Your task to perform on an android device: turn off wifi Image 0: 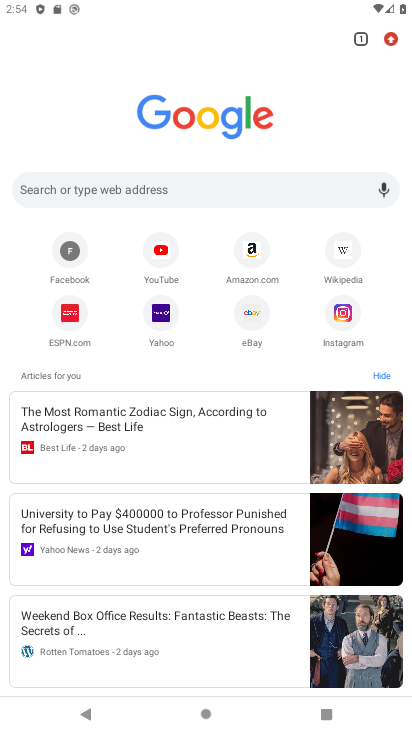
Step 0: drag from (141, 327) to (159, 211)
Your task to perform on an android device: turn off wifi Image 1: 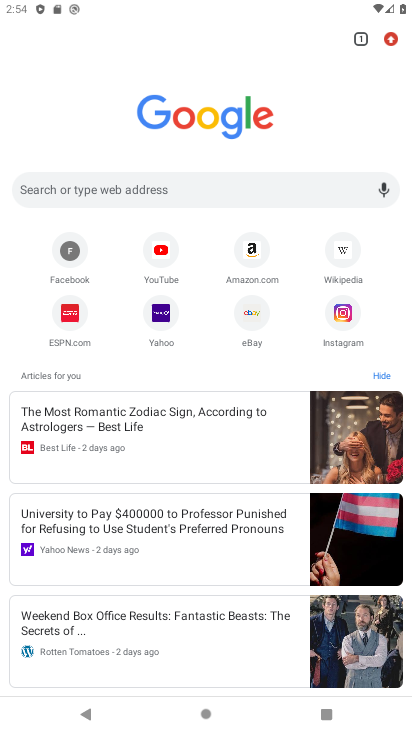
Step 1: drag from (163, 539) to (256, 147)
Your task to perform on an android device: turn off wifi Image 2: 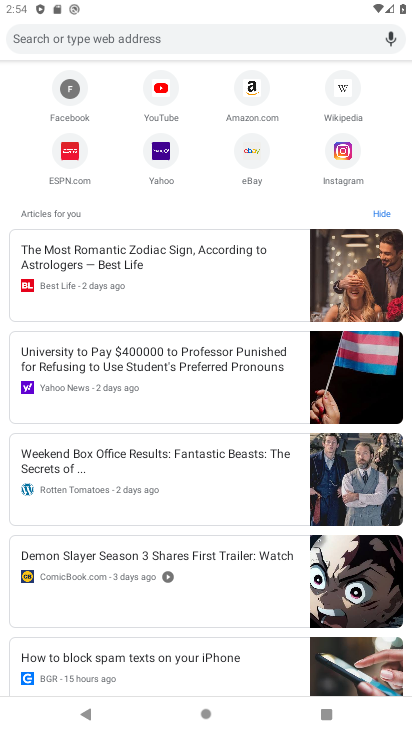
Step 2: drag from (184, 367) to (138, 531)
Your task to perform on an android device: turn off wifi Image 3: 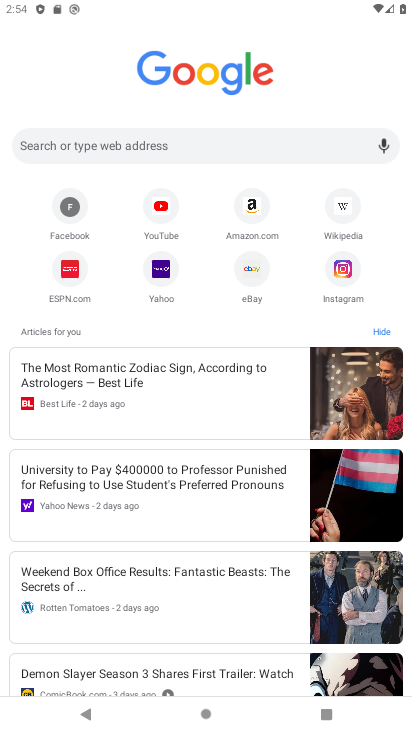
Step 3: drag from (201, 226) to (154, 512)
Your task to perform on an android device: turn off wifi Image 4: 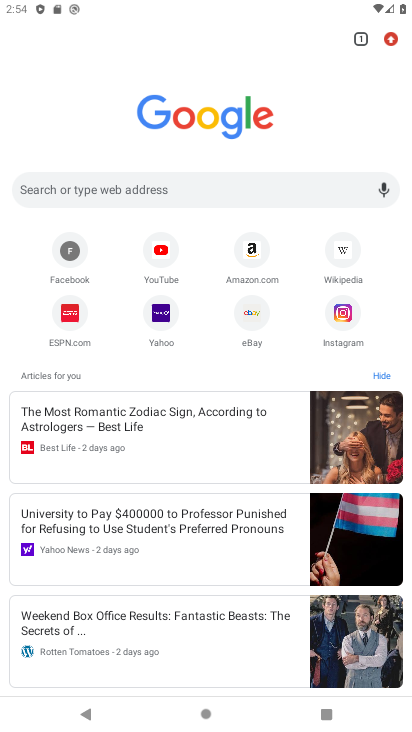
Step 4: drag from (205, 188) to (147, 447)
Your task to perform on an android device: turn off wifi Image 5: 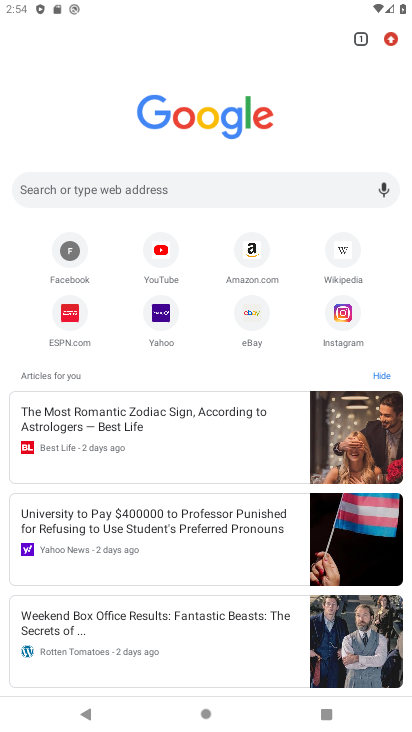
Step 5: press home button
Your task to perform on an android device: turn off wifi Image 6: 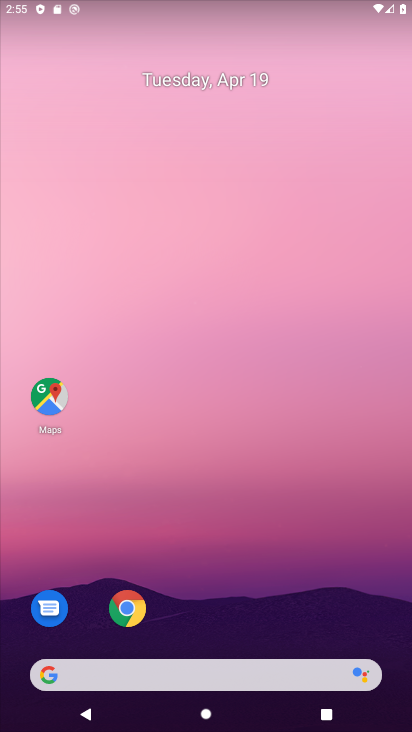
Step 6: drag from (302, 566) to (389, 147)
Your task to perform on an android device: turn off wifi Image 7: 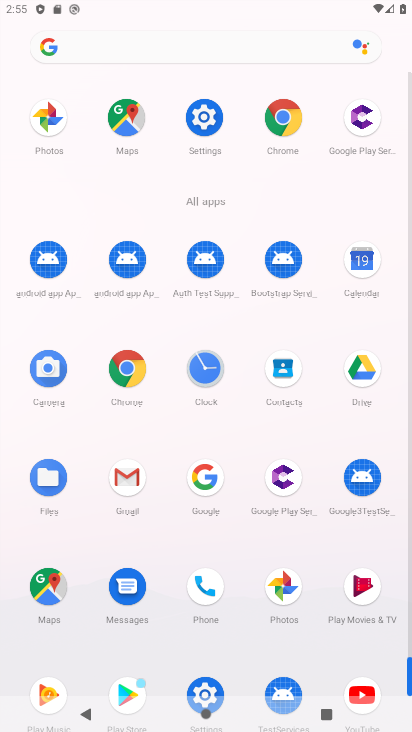
Step 7: click (210, 129)
Your task to perform on an android device: turn off wifi Image 8: 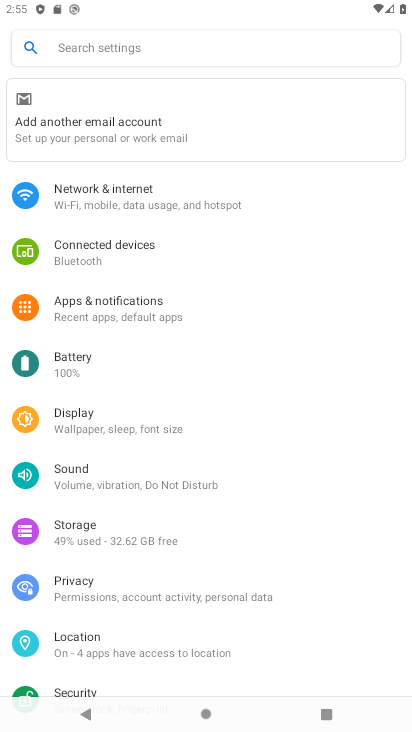
Step 8: click (109, 199)
Your task to perform on an android device: turn off wifi Image 9: 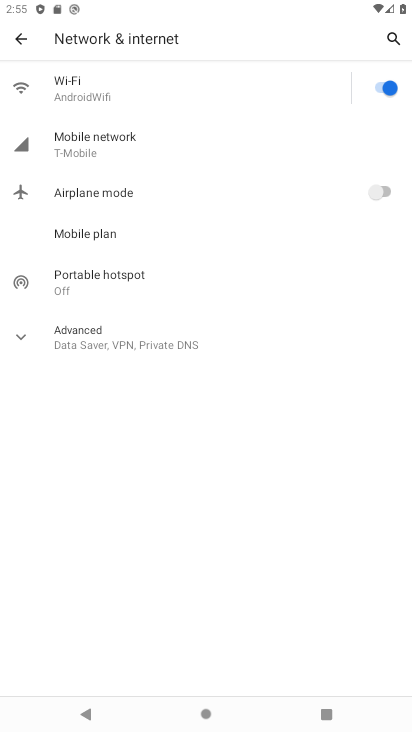
Step 9: click (77, 96)
Your task to perform on an android device: turn off wifi Image 10: 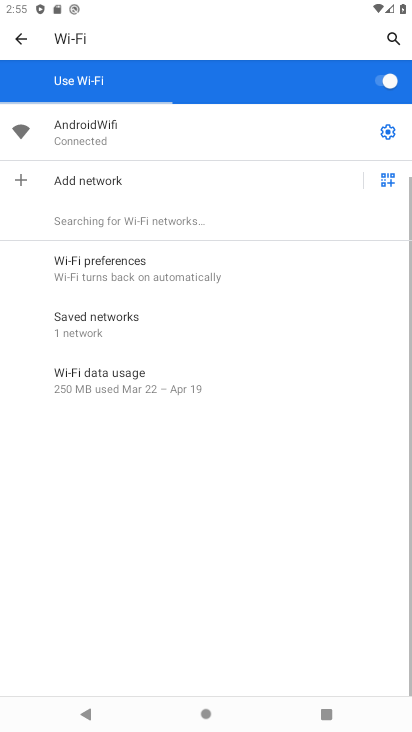
Step 10: click (390, 87)
Your task to perform on an android device: turn off wifi Image 11: 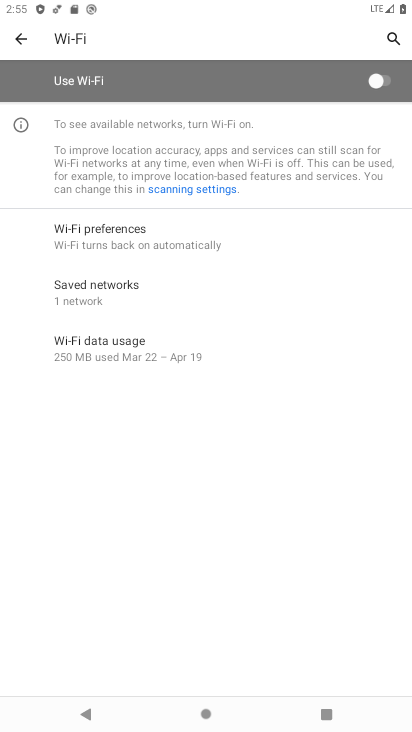
Step 11: task complete